Your task to perform on an android device: snooze an email in the gmail app Image 0: 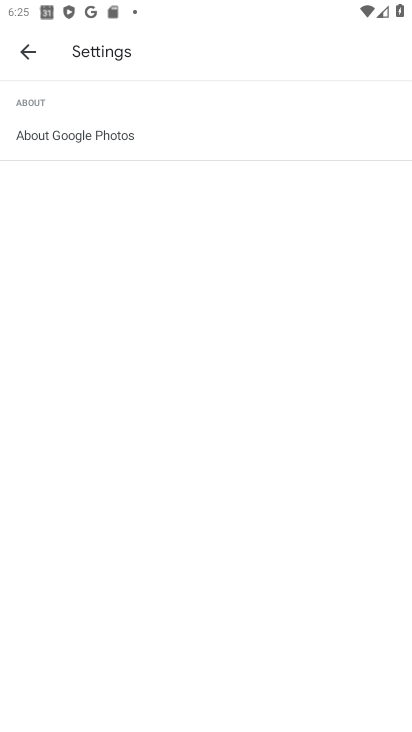
Step 0: press home button
Your task to perform on an android device: snooze an email in the gmail app Image 1: 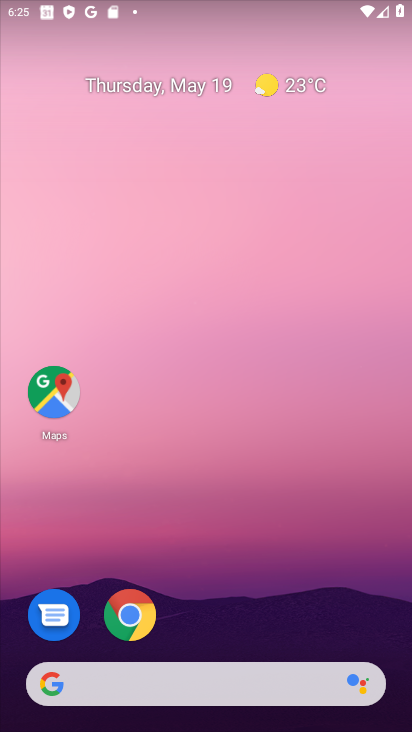
Step 1: drag from (347, 607) to (337, 14)
Your task to perform on an android device: snooze an email in the gmail app Image 2: 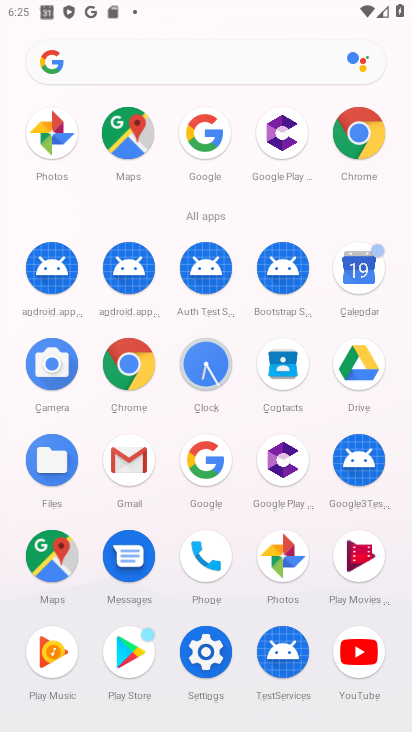
Step 2: click (149, 465)
Your task to perform on an android device: snooze an email in the gmail app Image 3: 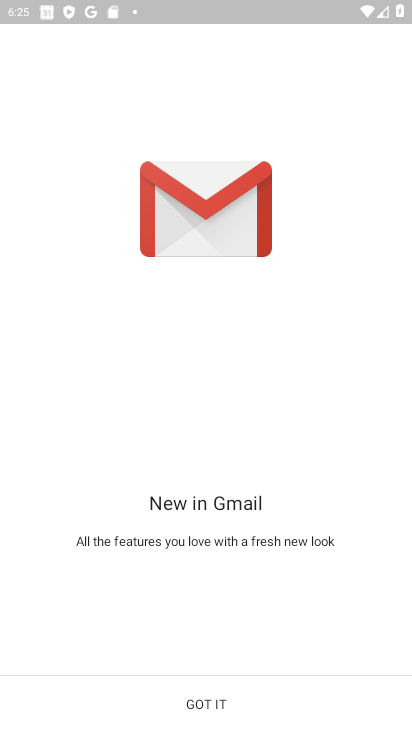
Step 3: click (230, 703)
Your task to perform on an android device: snooze an email in the gmail app Image 4: 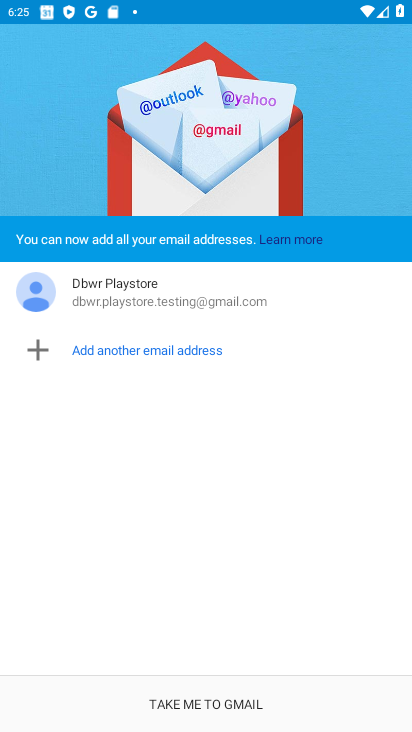
Step 4: click (230, 703)
Your task to perform on an android device: snooze an email in the gmail app Image 5: 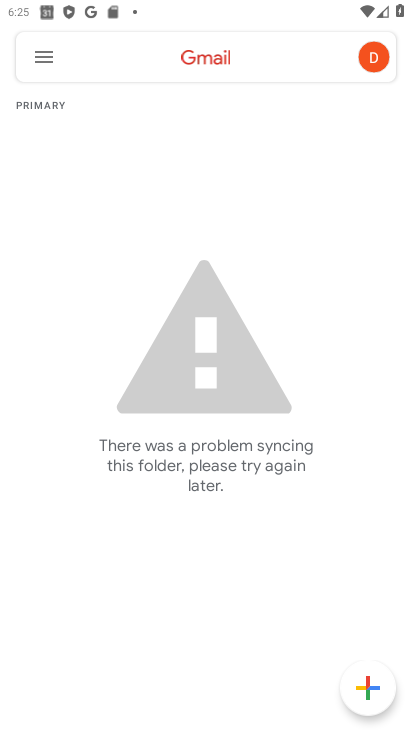
Step 5: click (230, 703)
Your task to perform on an android device: snooze an email in the gmail app Image 6: 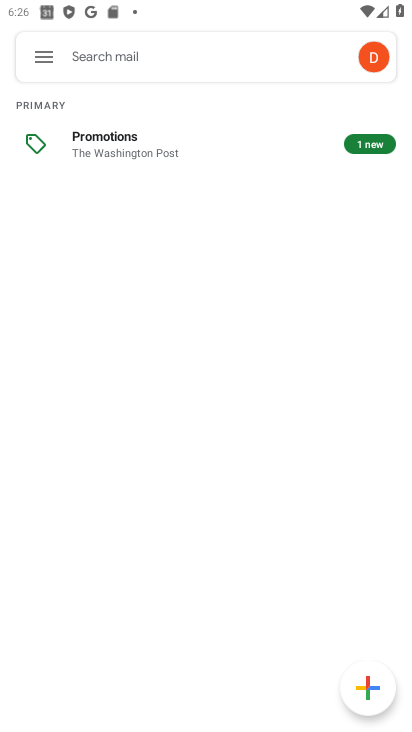
Step 6: task complete